Your task to perform on an android device: Open location settings Image 0: 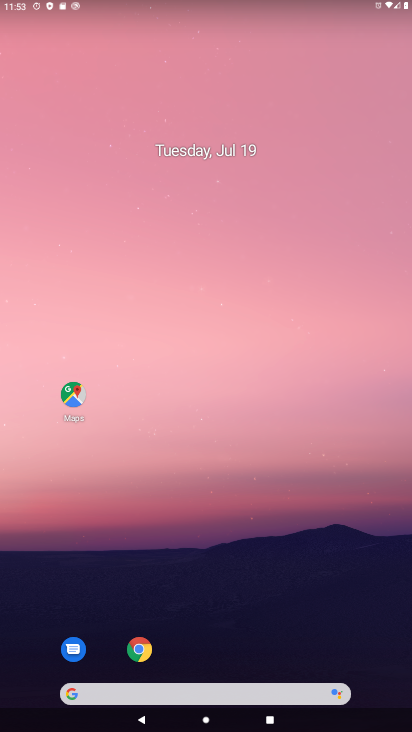
Step 0: drag from (232, 686) to (232, 313)
Your task to perform on an android device: Open location settings Image 1: 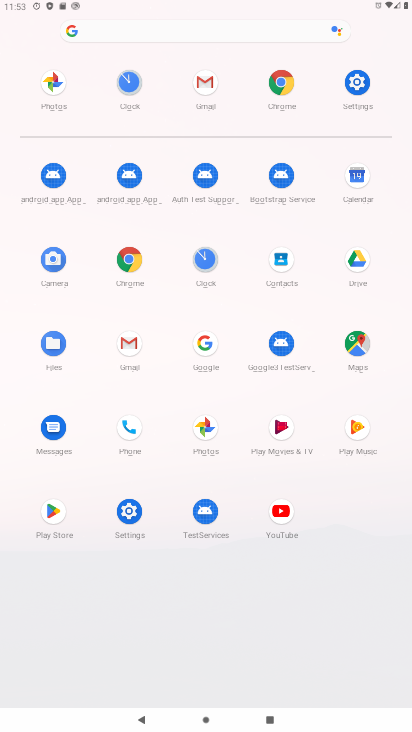
Step 1: click (357, 86)
Your task to perform on an android device: Open location settings Image 2: 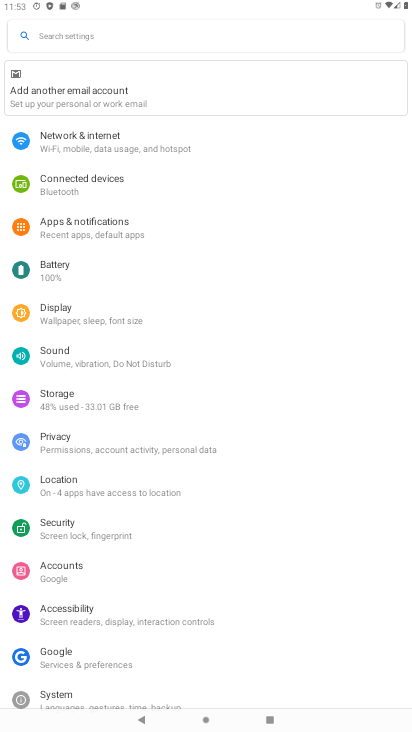
Step 2: click (54, 482)
Your task to perform on an android device: Open location settings Image 3: 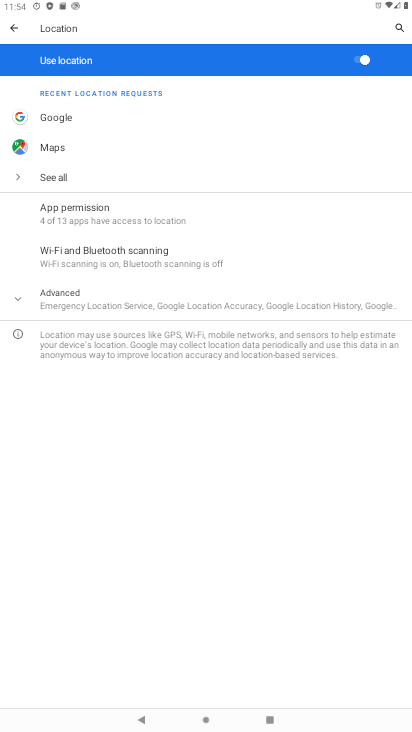
Step 3: task complete